Your task to perform on an android device: Open Maps and search for coffee Image 0: 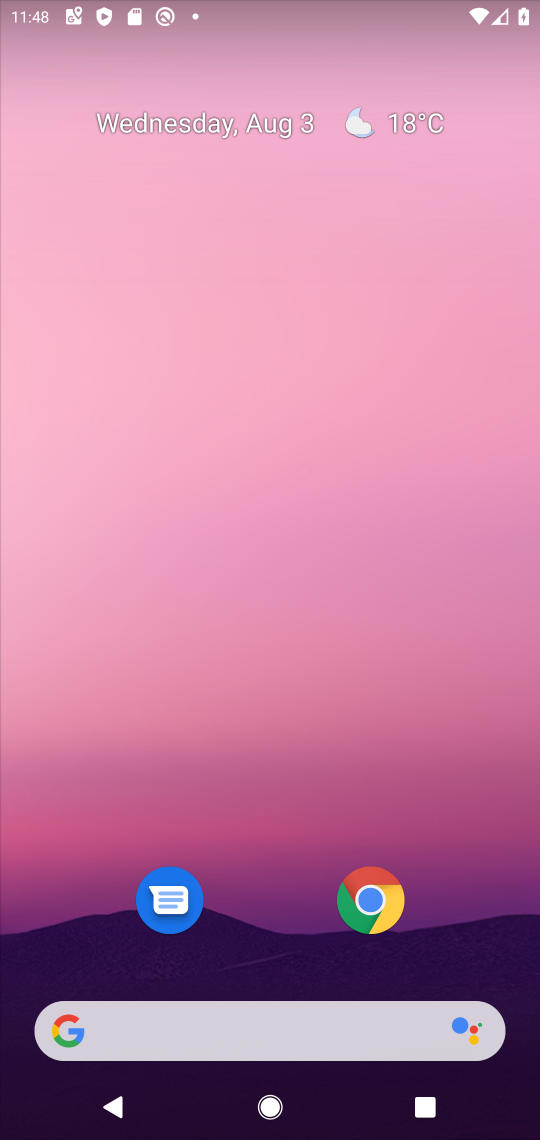
Step 0: press home button
Your task to perform on an android device: Open Maps and search for coffee Image 1: 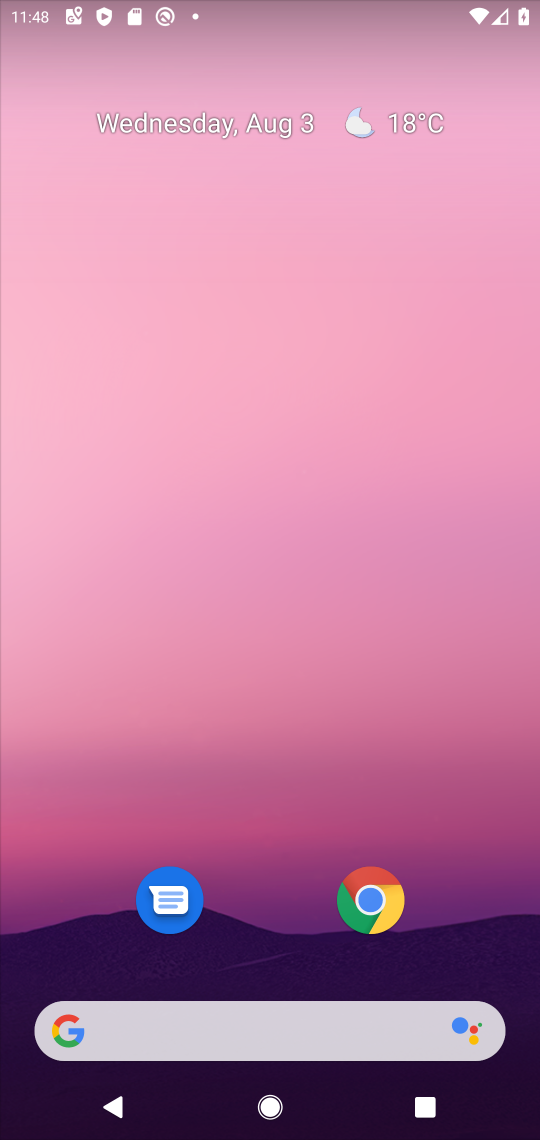
Step 1: click (320, 268)
Your task to perform on an android device: Open Maps and search for coffee Image 2: 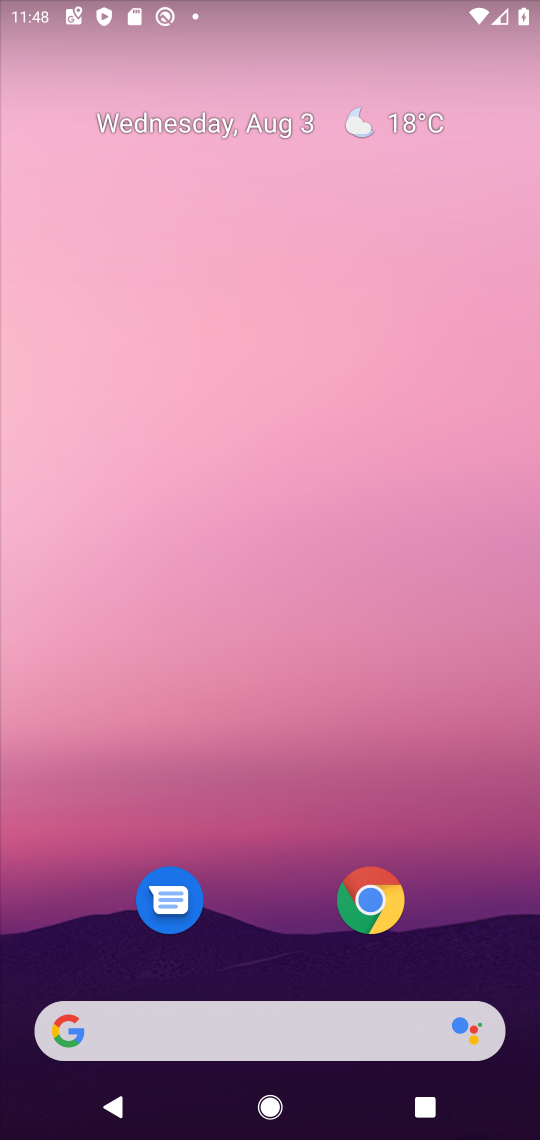
Step 2: drag from (291, 957) to (355, 250)
Your task to perform on an android device: Open Maps and search for coffee Image 3: 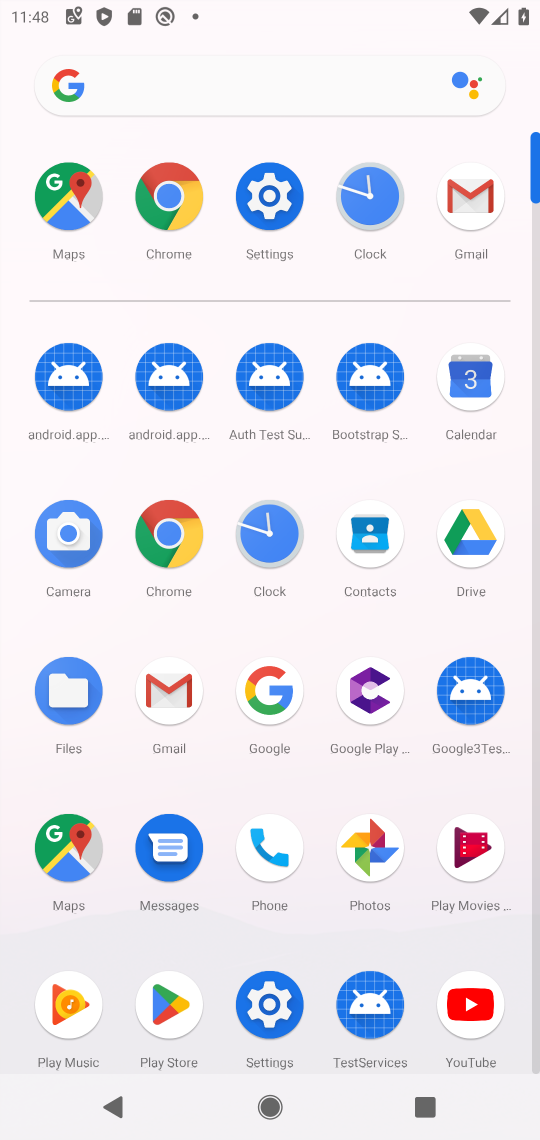
Step 3: click (57, 855)
Your task to perform on an android device: Open Maps and search for coffee Image 4: 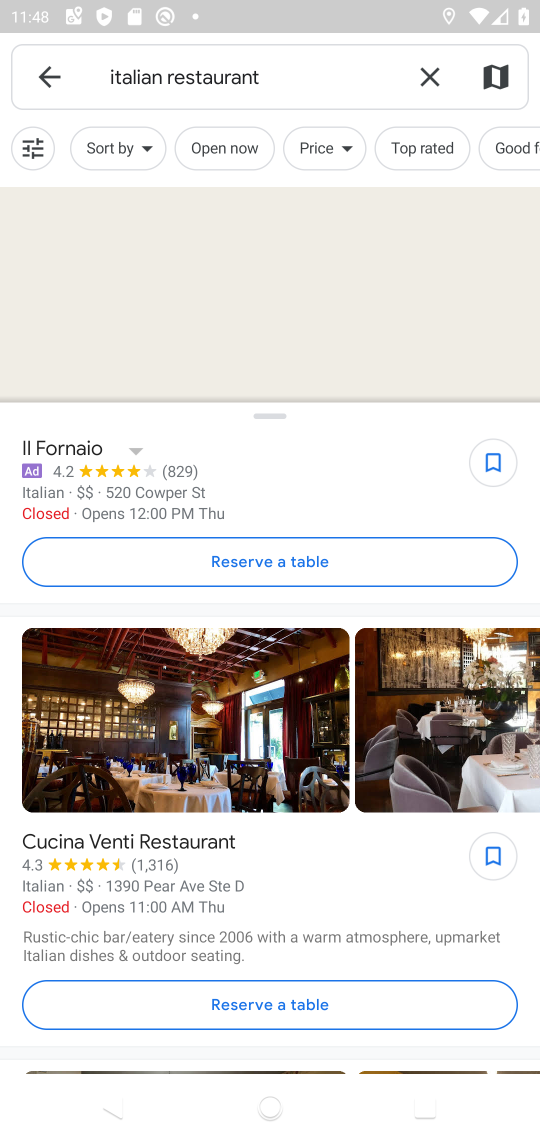
Step 4: click (423, 67)
Your task to perform on an android device: Open Maps and search for coffee Image 5: 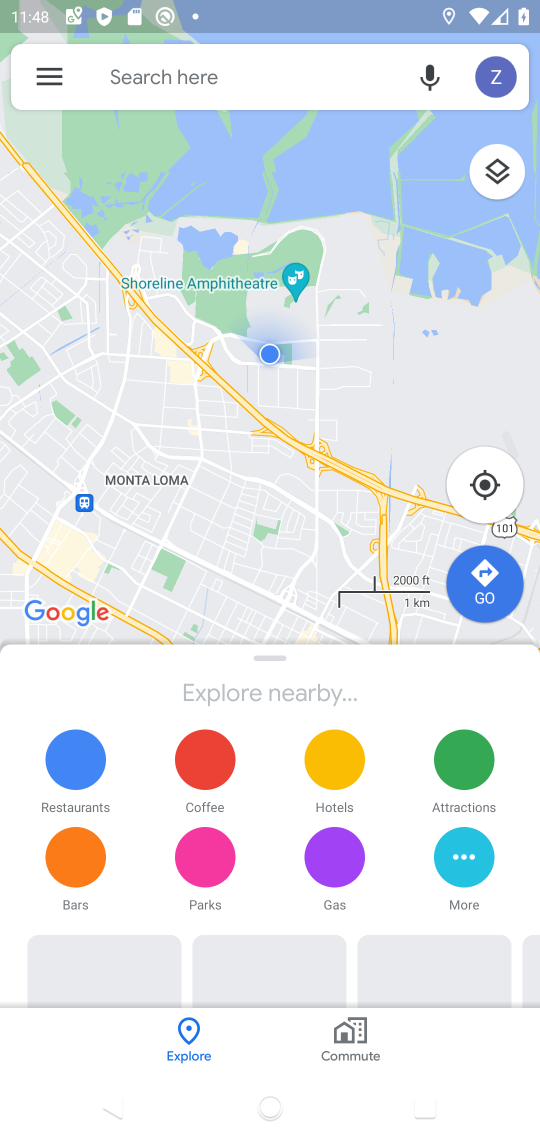
Step 5: click (266, 83)
Your task to perform on an android device: Open Maps and search for coffee Image 6: 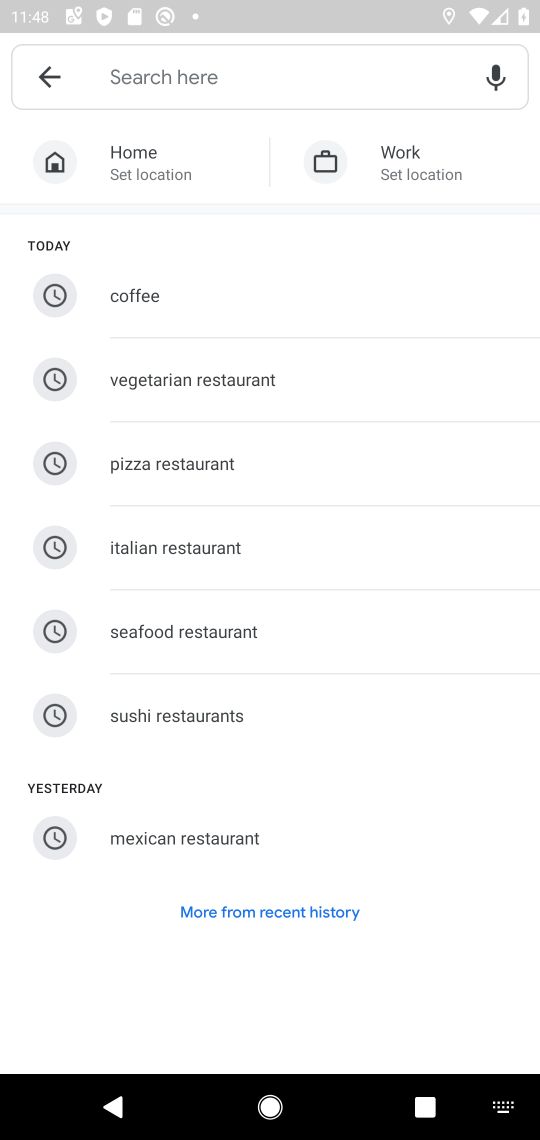
Step 6: type " coffee"
Your task to perform on an android device: Open Maps and search for coffee Image 7: 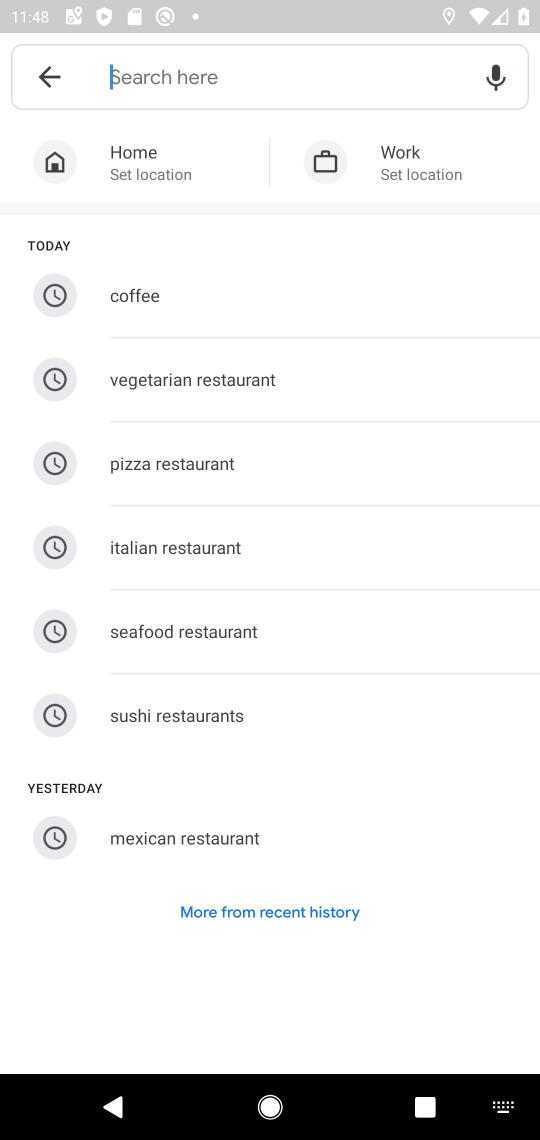
Step 7: click (150, 287)
Your task to perform on an android device: Open Maps and search for coffee Image 8: 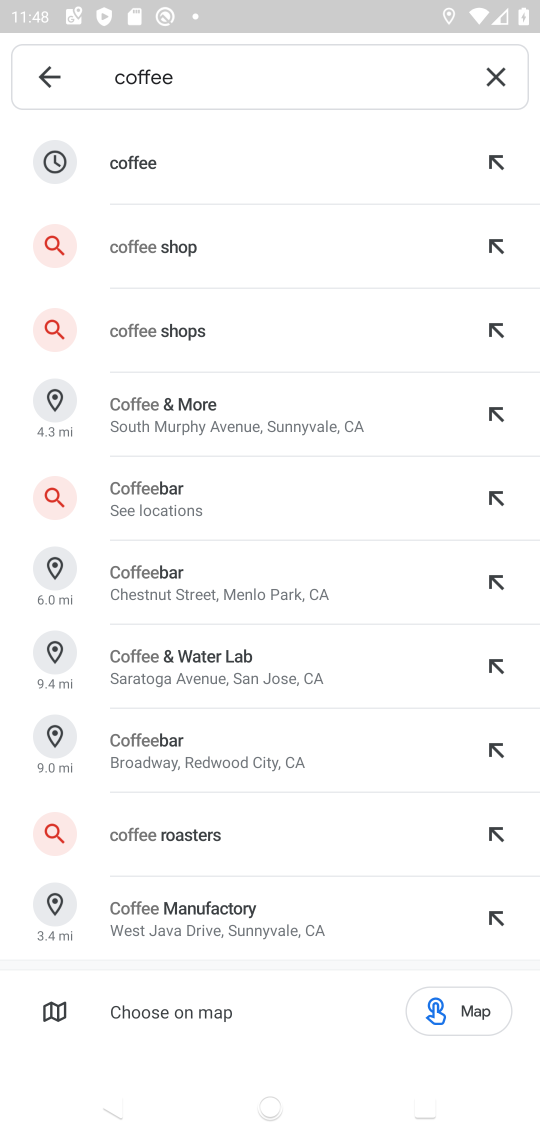
Step 8: click (125, 163)
Your task to perform on an android device: Open Maps and search for coffee Image 9: 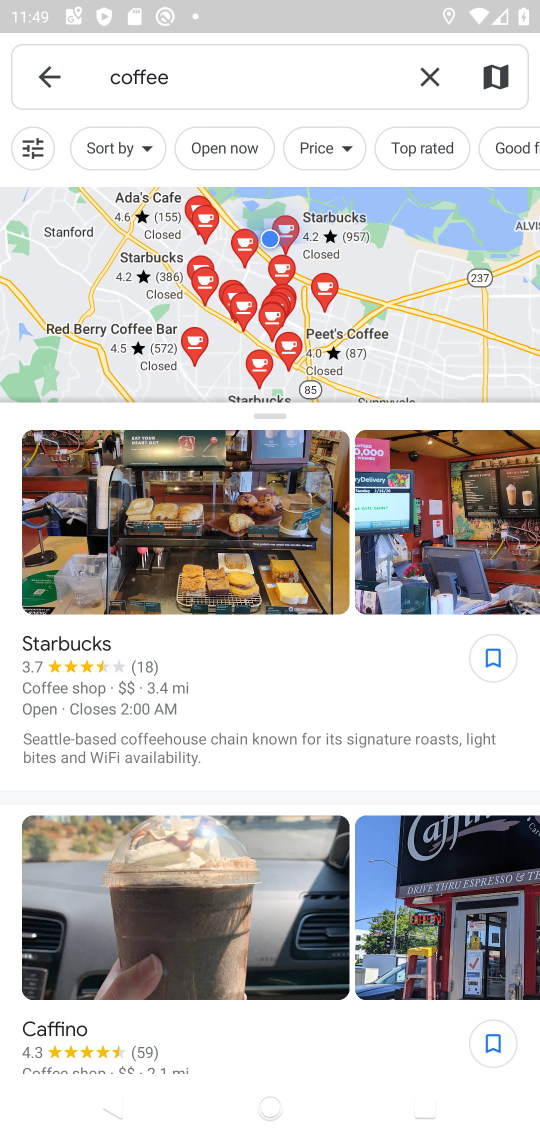
Step 9: task complete